Your task to perform on an android device: What's the weather going to be this weekend? Image 0: 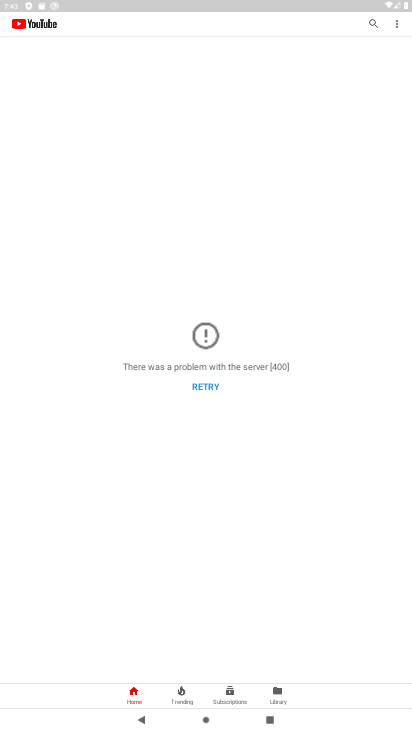
Step 0: press home button
Your task to perform on an android device: What's the weather going to be this weekend? Image 1: 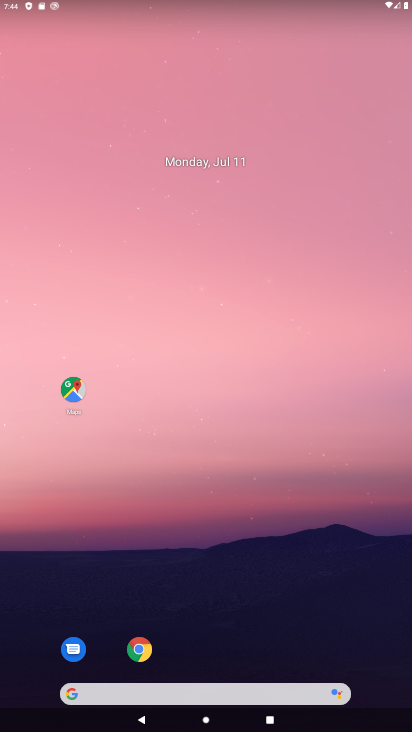
Step 1: click (142, 650)
Your task to perform on an android device: What's the weather going to be this weekend? Image 2: 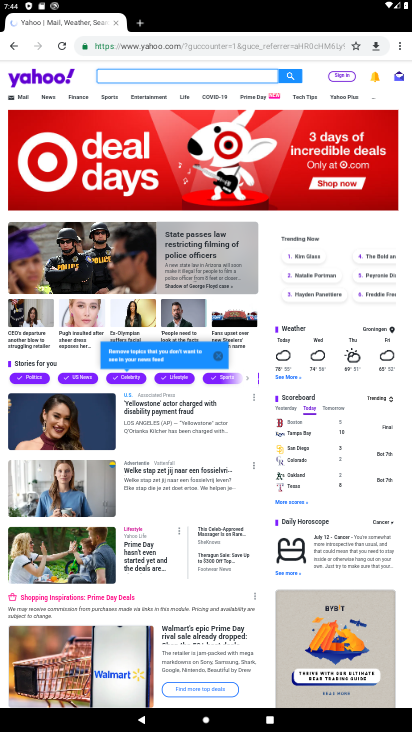
Step 2: click (291, 43)
Your task to perform on an android device: What's the weather going to be this weekend? Image 3: 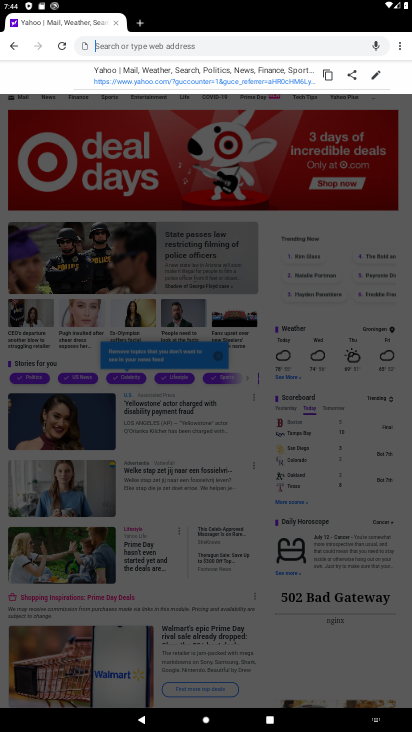
Step 3: type "What's the weather going to be this weekend"
Your task to perform on an android device: What's the weather going to be this weekend? Image 4: 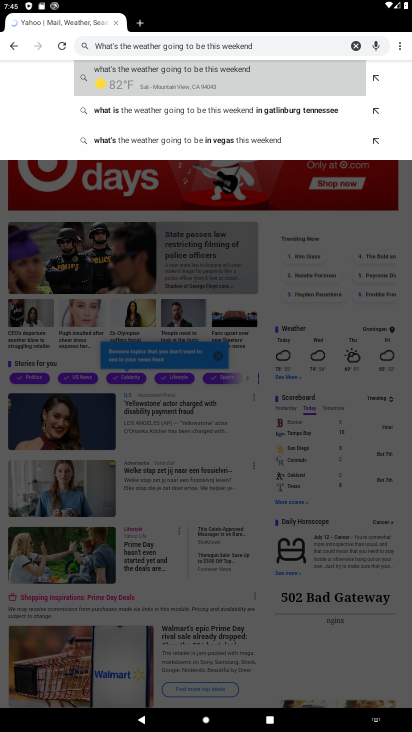
Step 4: click (239, 89)
Your task to perform on an android device: What's the weather going to be this weekend? Image 5: 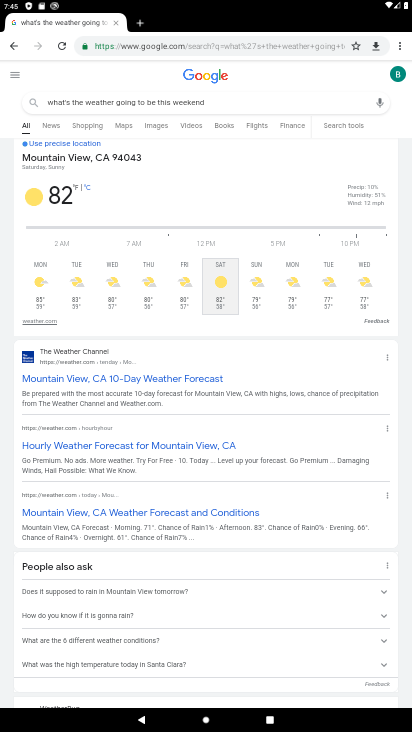
Step 5: task complete